Your task to perform on an android device: Open the calendar and show me this week's events? Image 0: 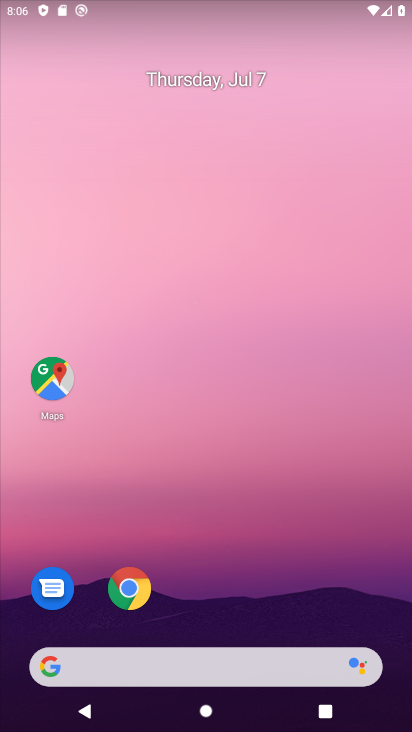
Step 0: drag from (227, 559) to (217, 146)
Your task to perform on an android device: Open the calendar and show me this week's events? Image 1: 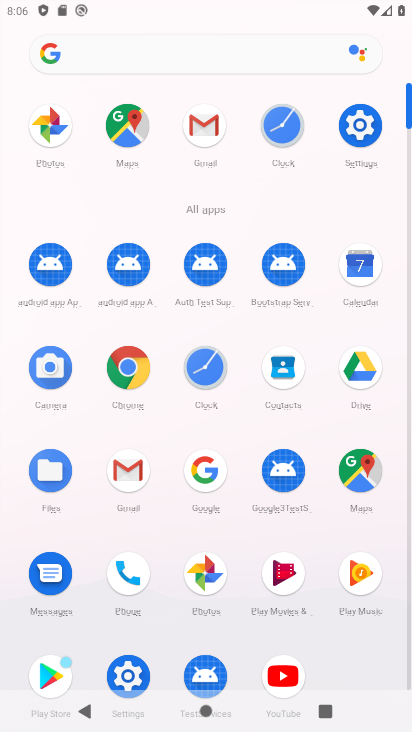
Step 1: click (360, 262)
Your task to perform on an android device: Open the calendar and show me this week's events? Image 2: 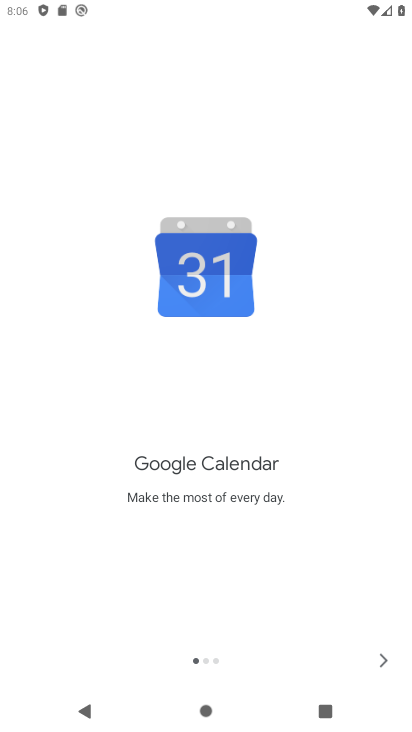
Step 2: click (386, 659)
Your task to perform on an android device: Open the calendar and show me this week's events? Image 3: 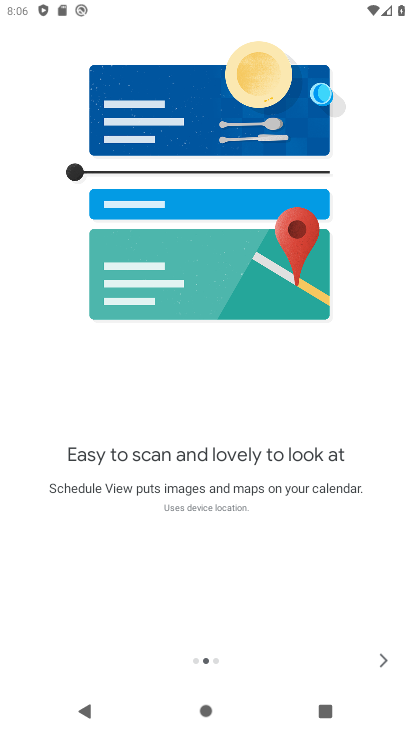
Step 3: click (386, 659)
Your task to perform on an android device: Open the calendar and show me this week's events? Image 4: 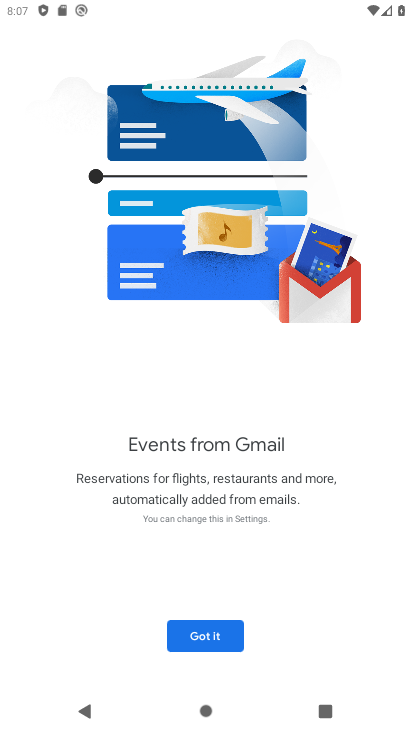
Step 4: click (182, 633)
Your task to perform on an android device: Open the calendar and show me this week's events? Image 5: 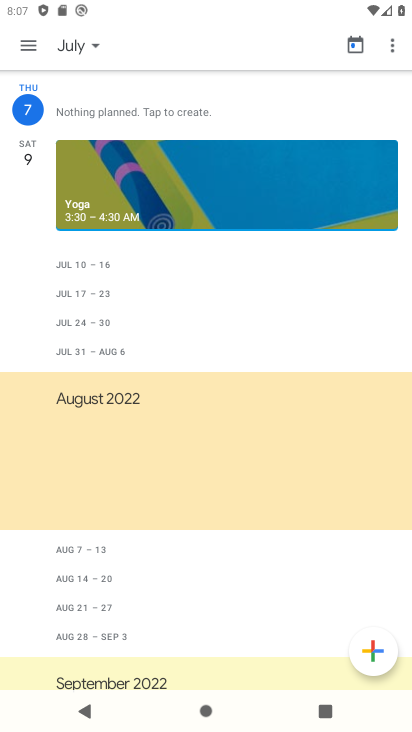
Step 5: click (95, 47)
Your task to perform on an android device: Open the calendar and show me this week's events? Image 6: 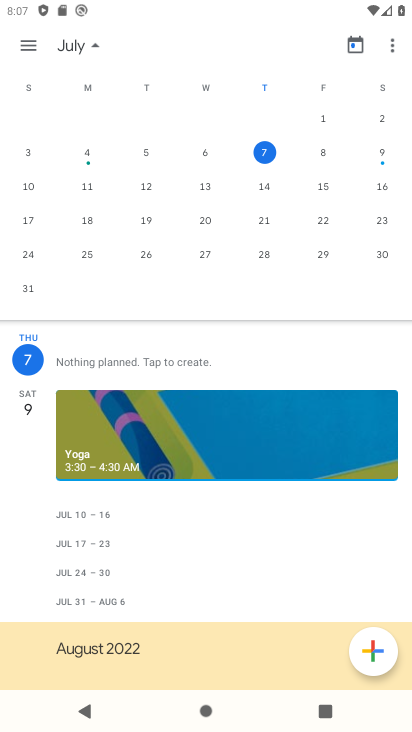
Step 6: click (386, 160)
Your task to perform on an android device: Open the calendar and show me this week's events? Image 7: 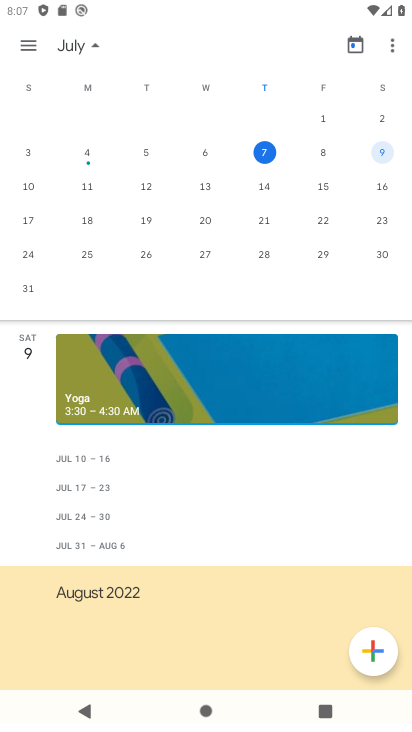
Step 7: click (35, 50)
Your task to perform on an android device: Open the calendar and show me this week's events? Image 8: 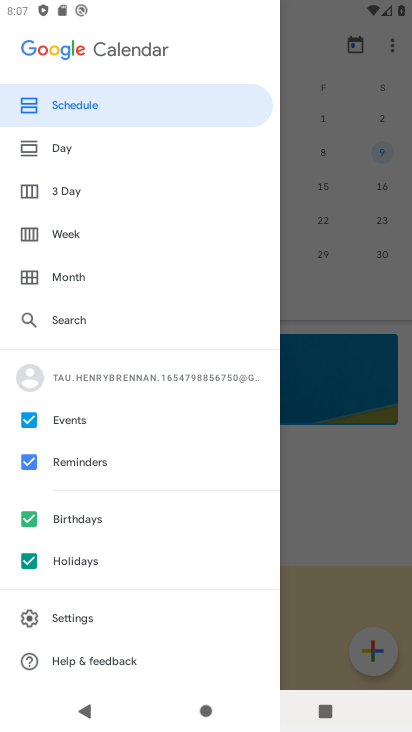
Step 8: click (63, 235)
Your task to perform on an android device: Open the calendar and show me this week's events? Image 9: 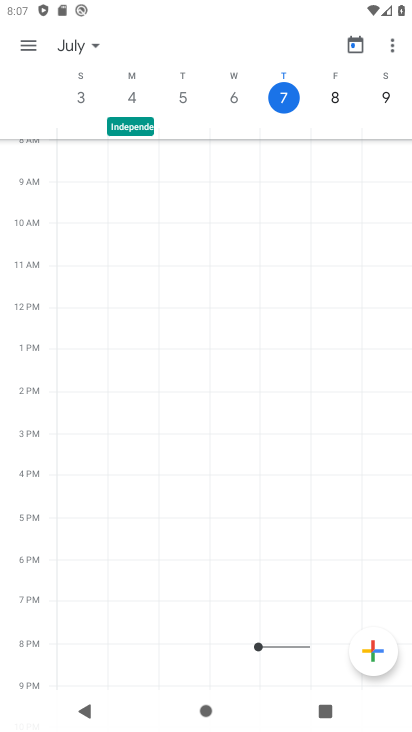
Step 9: task complete